Your task to perform on an android device: empty trash in the gmail app Image 0: 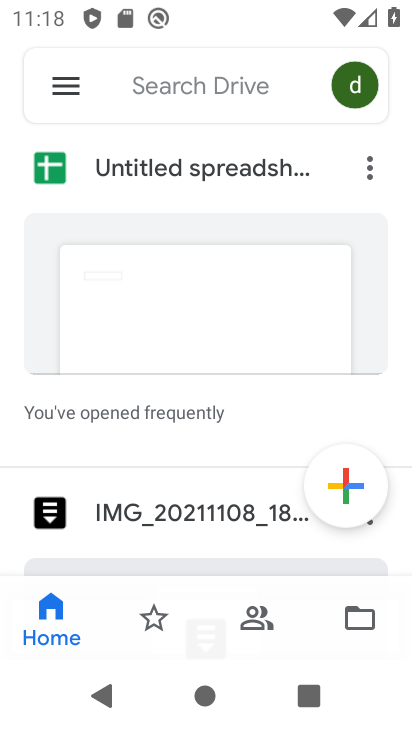
Step 0: click (59, 89)
Your task to perform on an android device: empty trash in the gmail app Image 1: 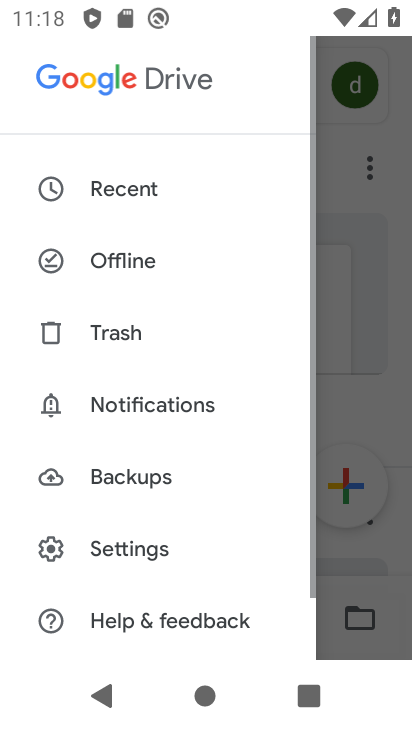
Step 1: click (120, 313)
Your task to perform on an android device: empty trash in the gmail app Image 2: 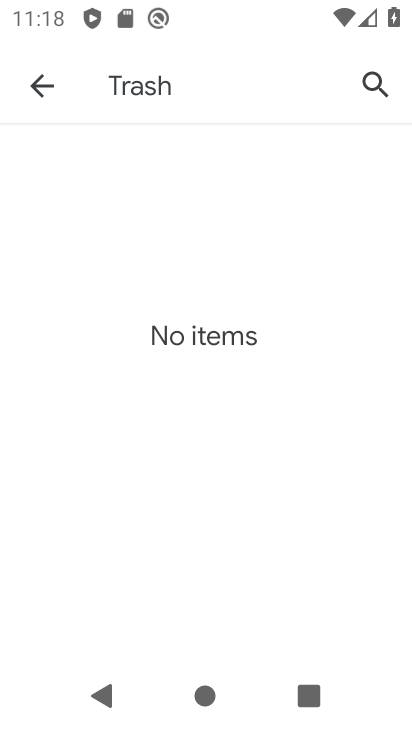
Step 2: task complete